Your task to perform on an android device: stop showing notifications on the lock screen Image 0: 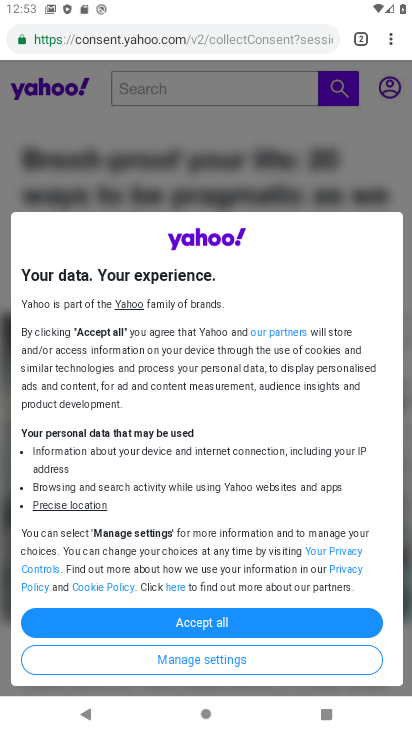
Step 0: press home button
Your task to perform on an android device: stop showing notifications on the lock screen Image 1: 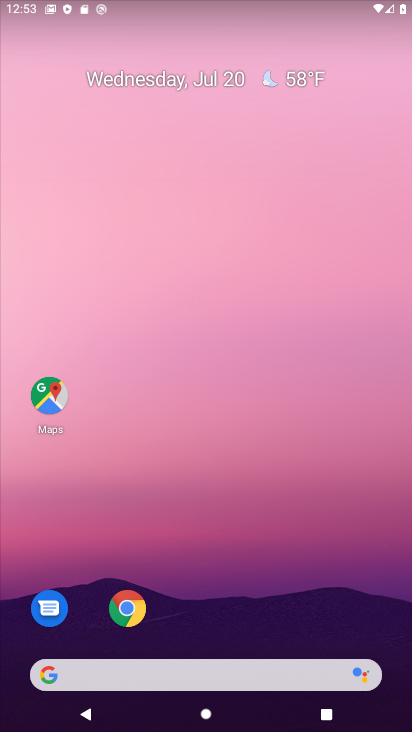
Step 1: drag from (238, 719) to (193, 261)
Your task to perform on an android device: stop showing notifications on the lock screen Image 2: 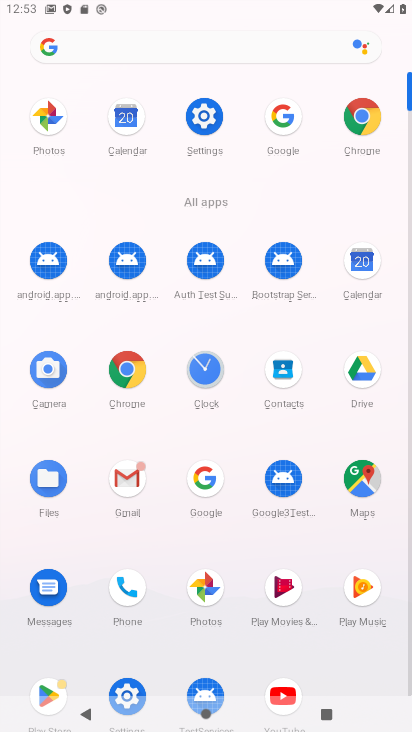
Step 2: click (208, 114)
Your task to perform on an android device: stop showing notifications on the lock screen Image 3: 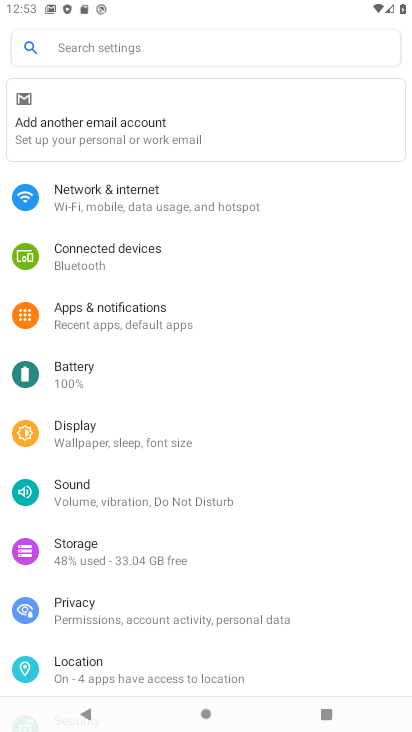
Step 3: click (139, 315)
Your task to perform on an android device: stop showing notifications on the lock screen Image 4: 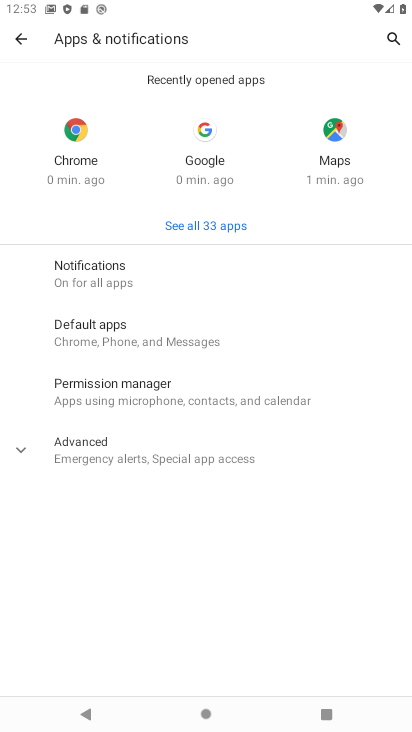
Step 4: click (79, 265)
Your task to perform on an android device: stop showing notifications on the lock screen Image 5: 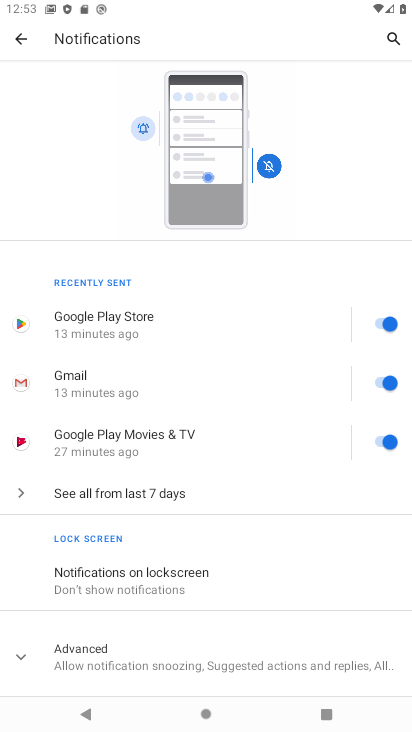
Step 5: click (150, 590)
Your task to perform on an android device: stop showing notifications on the lock screen Image 6: 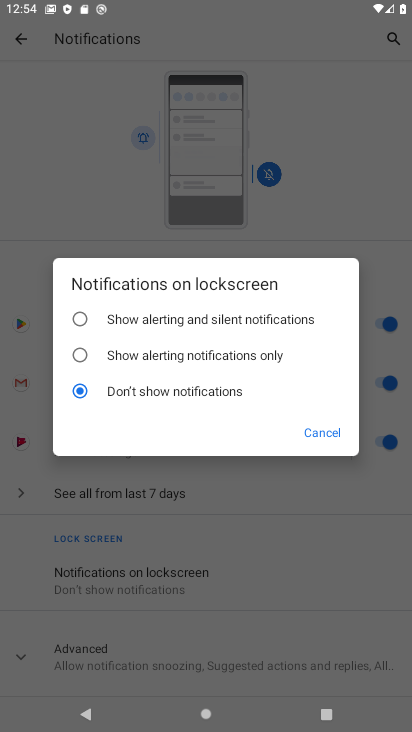
Step 6: click (333, 570)
Your task to perform on an android device: stop showing notifications on the lock screen Image 7: 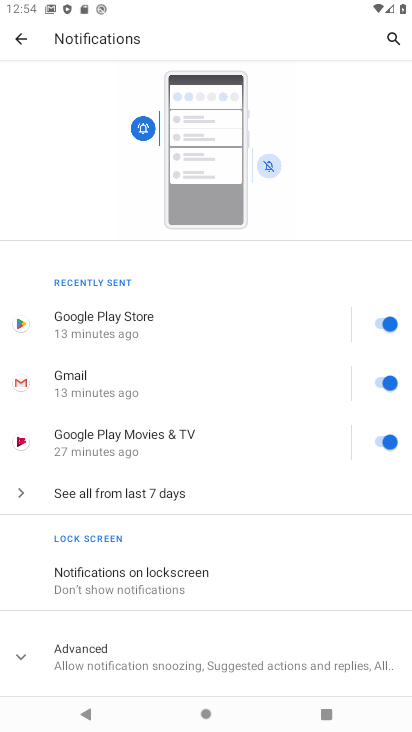
Step 7: task complete